Your task to perform on an android device: Open notification settings Image 0: 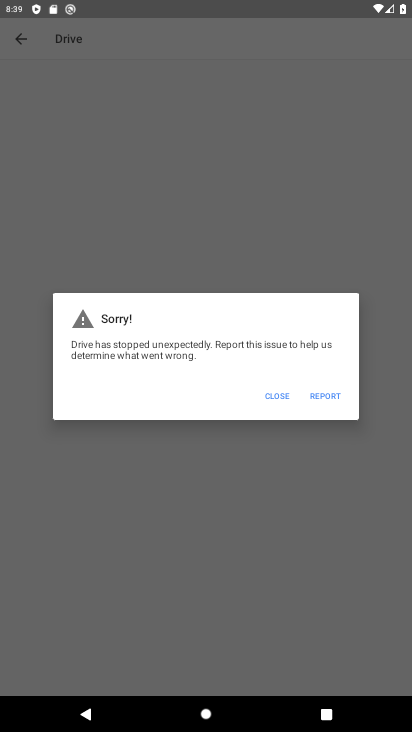
Step 0: press home button
Your task to perform on an android device: Open notification settings Image 1: 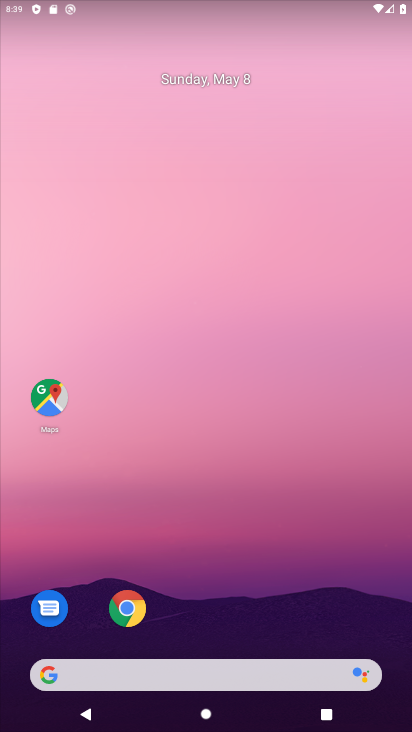
Step 1: drag from (255, 600) to (204, 238)
Your task to perform on an android device: Open notification settings Image 2: 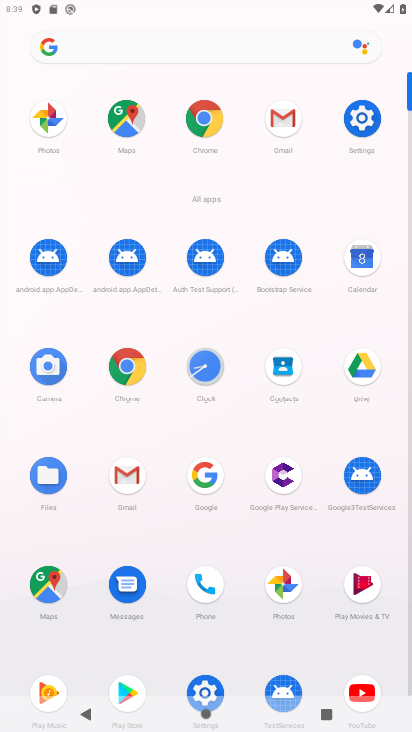
Step 2: click (358, 120)
Your task to perform on an android device: Open notification settings Image 3: 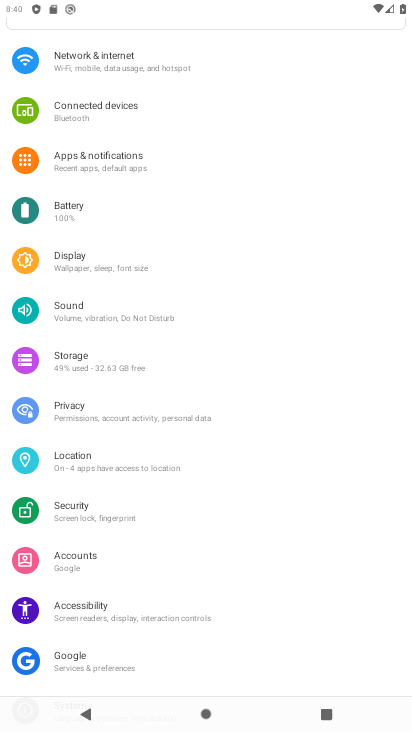
Step 3: click (92, 157)
Your task to perform on an android device: Open notification settings Image 4: 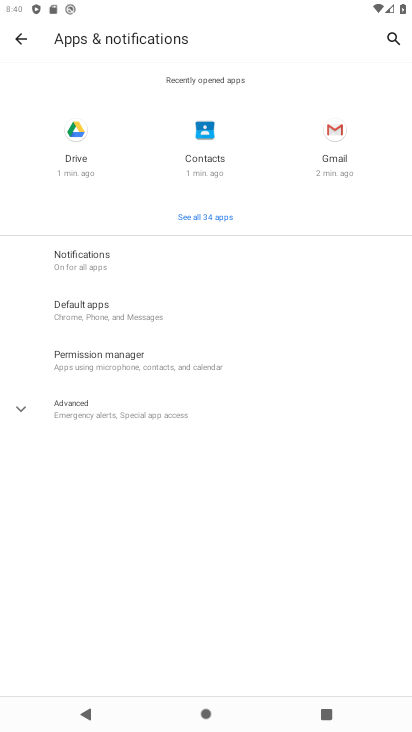
Step 4: click (95, 253)
Your task to perform on an android device: Open notification settings Image 5: 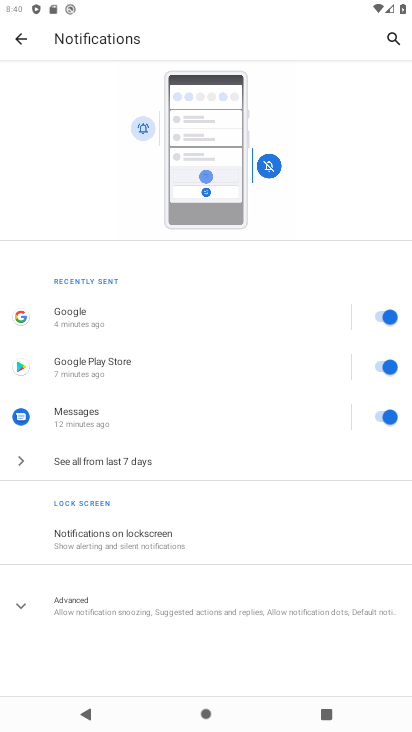
Step 5: task complete